Your task to perform on an android device: install app "WhatsApp Messenger" Image 0: 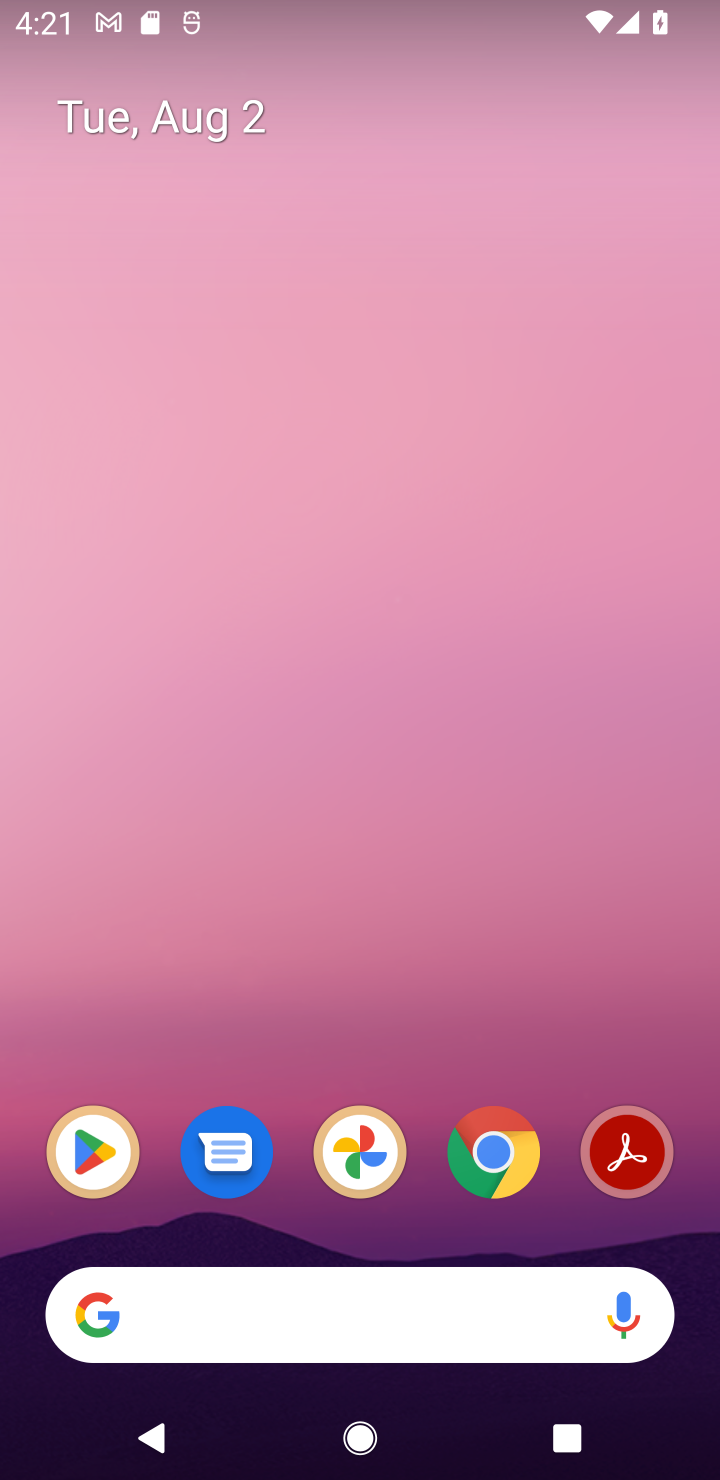
Step 0: drag from (548, 1011) to (0, 159)
Your task to perform on an android device: install app "WhatsApp Messenger" Image 1: 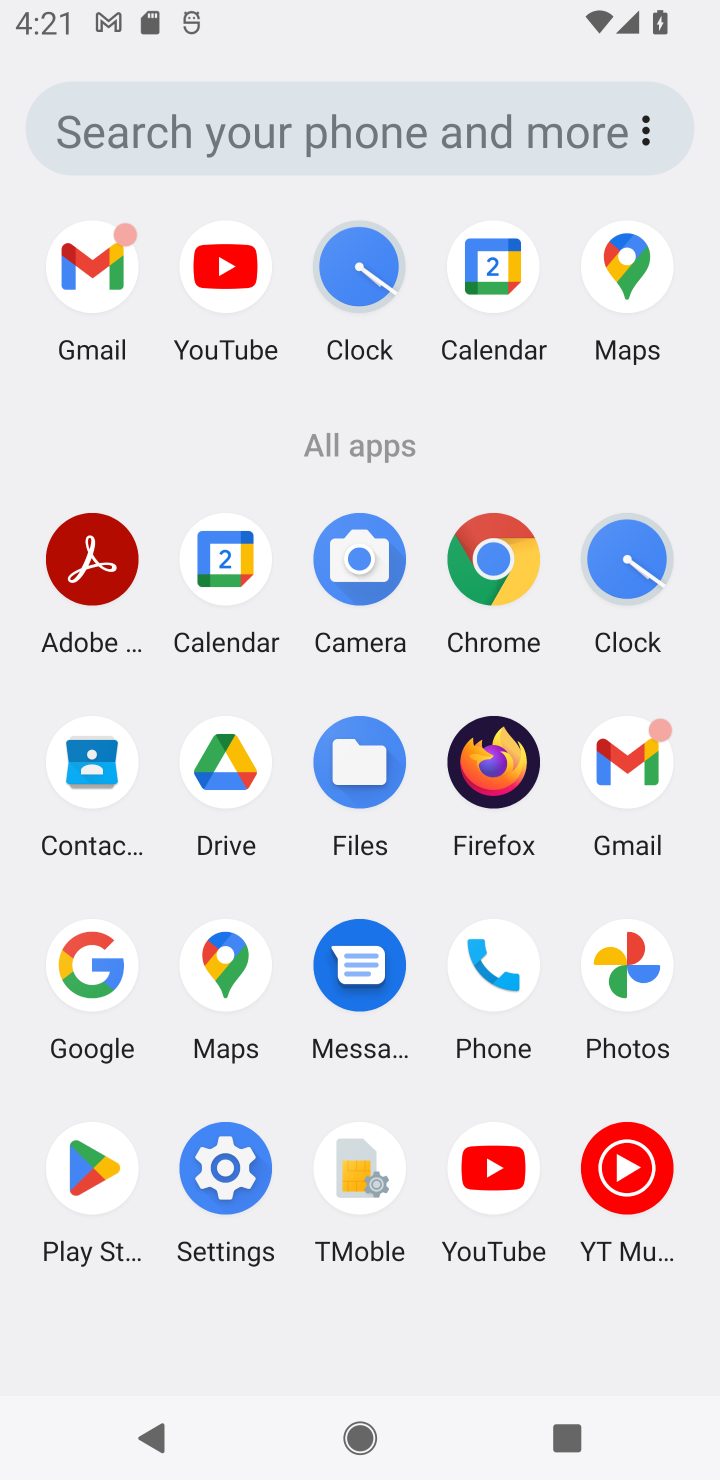
Step 1: click (105, 1160)
Your task to perform on an android device: install app "WhatsApp Messenger" Image 2: 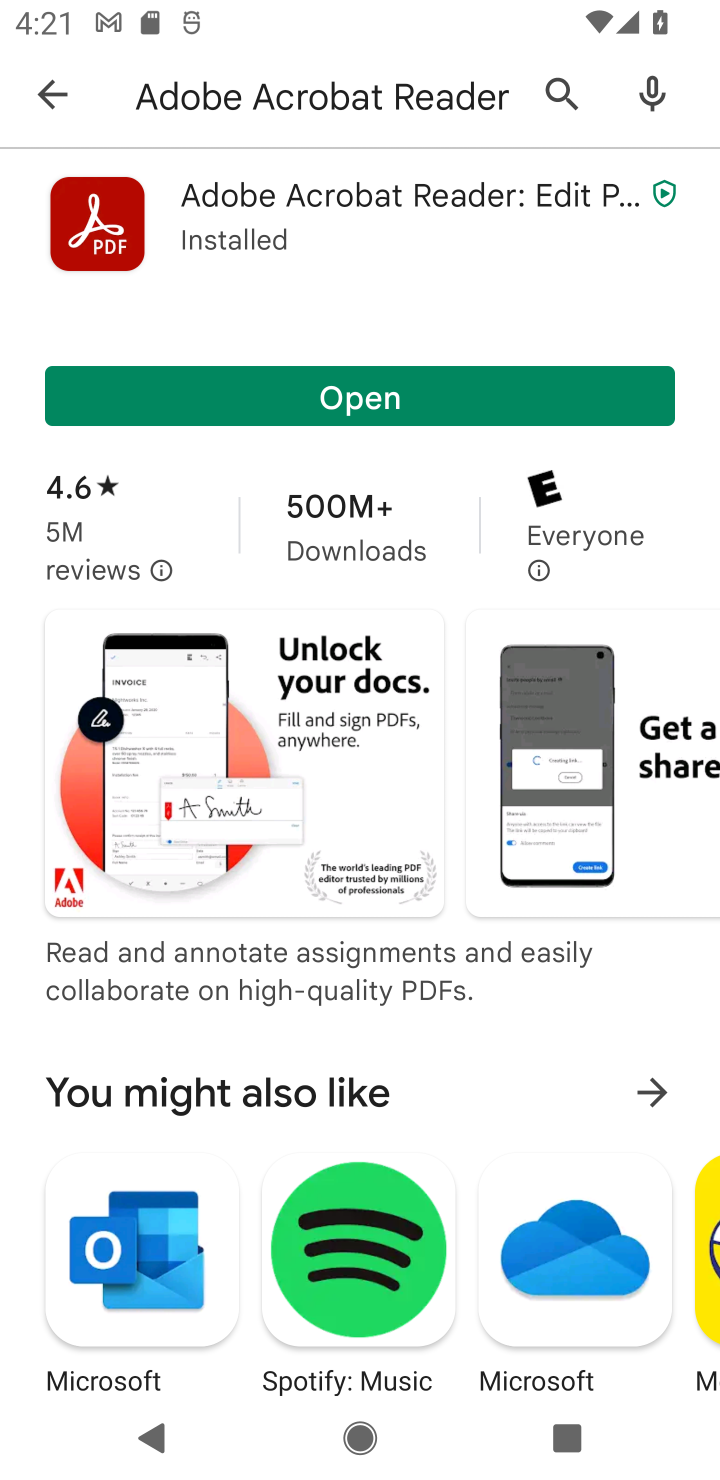
Step 2: click (458, 88)
Your task to perform on an android device: install app "WhatsApp Messenger" Image 3: 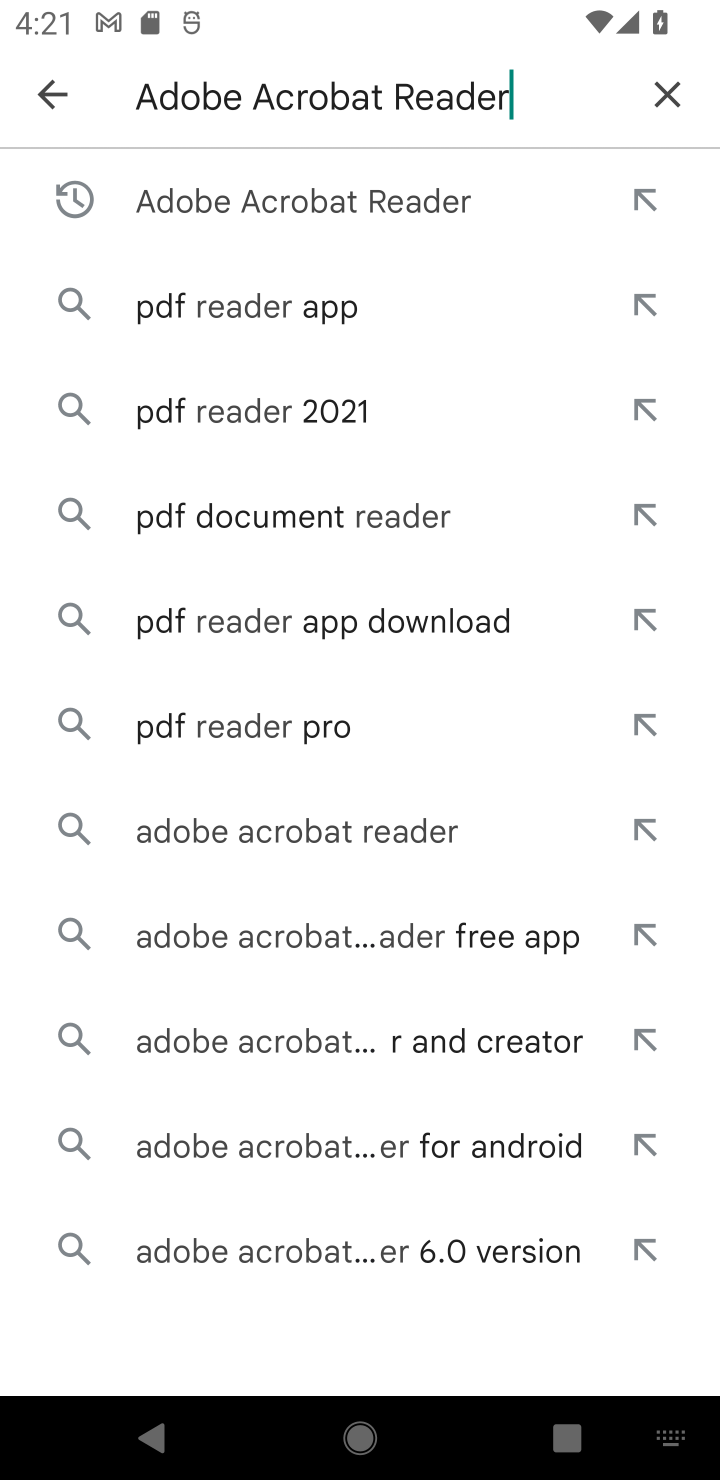
Step 3: click (682, 94)
Your task to perform on an android device: install app "WhatsApp Messenger" Image 4: 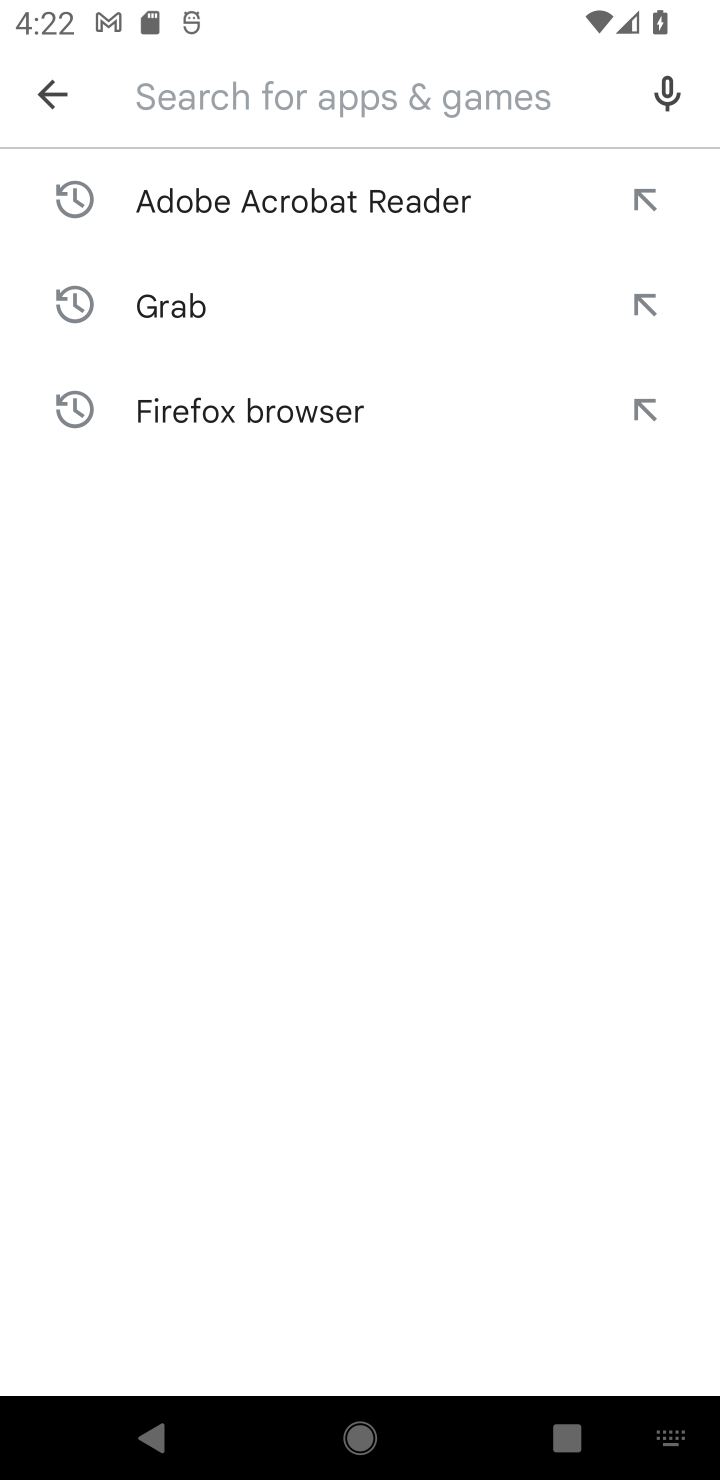
Step 4: type "WhatsApp MessengerWhatsApp Messenger"
Your task to perform on an android device: install app "WhatsApp Messenger" Image 5: 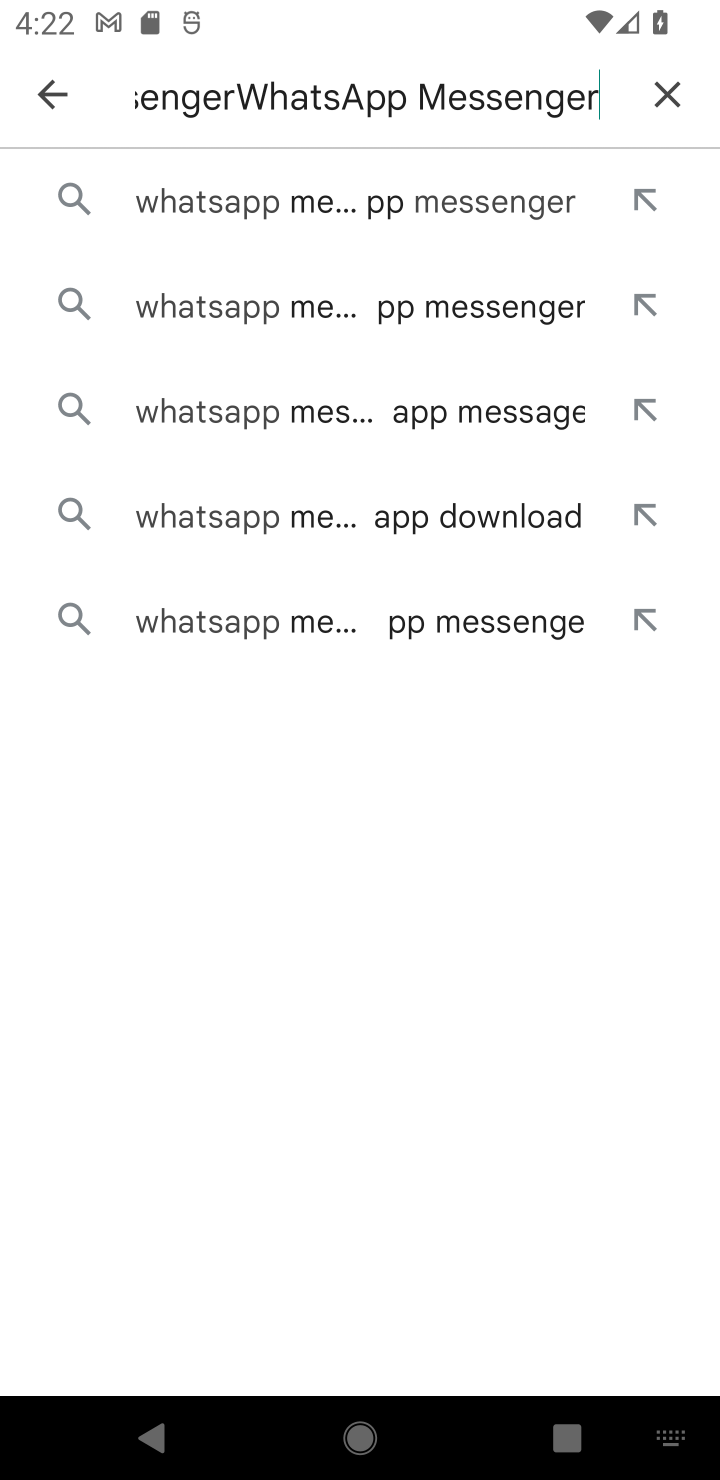
Step 5: press enter
Your task to perform on an android device: install app "WhatsApp Messenger" Image 6: 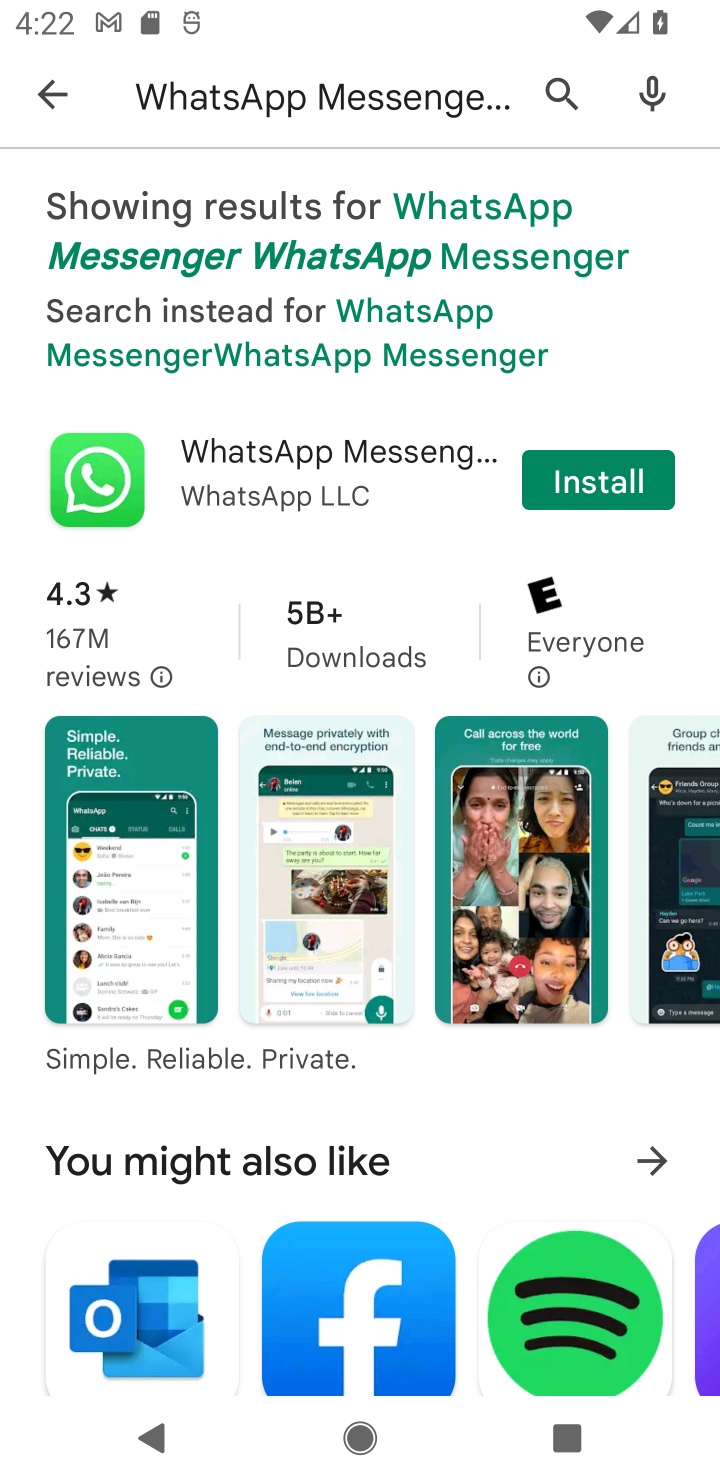
Step 6: click (382, 501)
Your task to perform on an android device: install app "WhatsApp Messenger" Image 7: 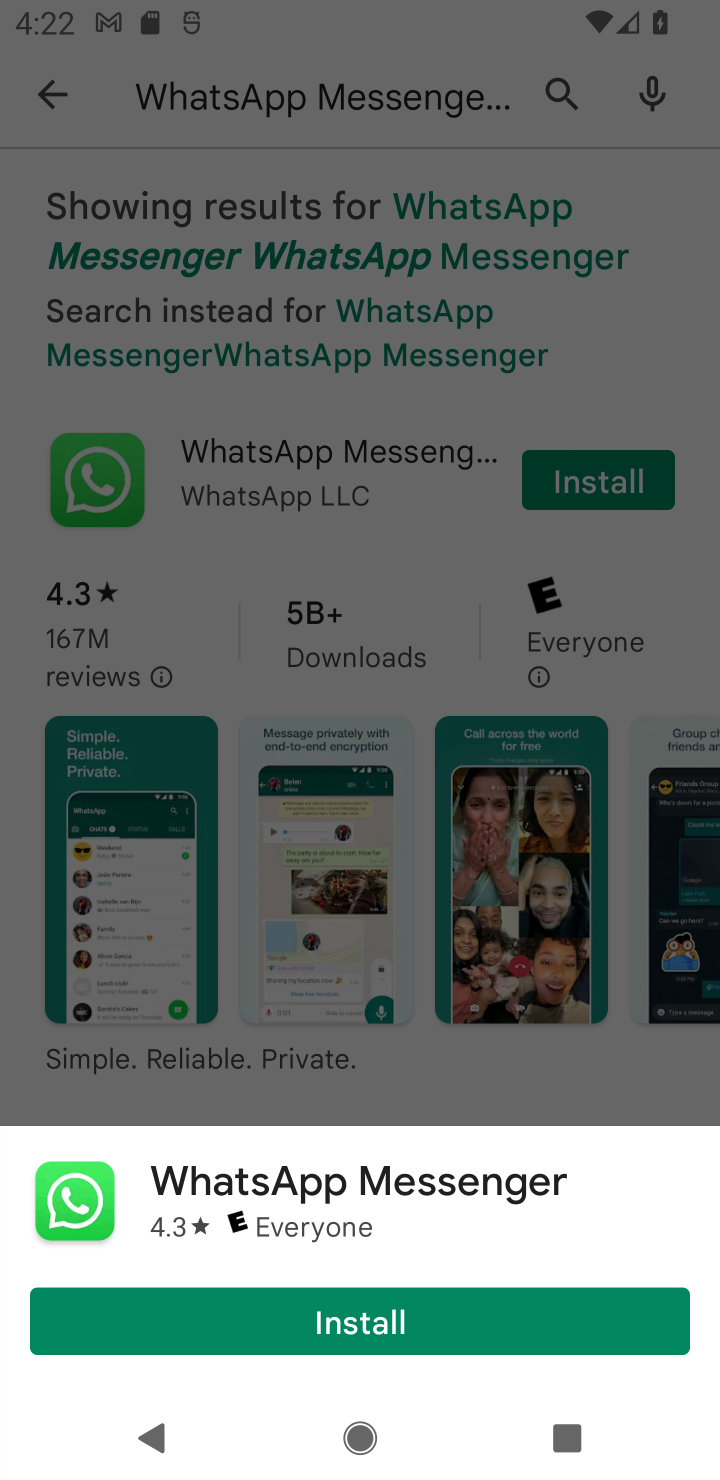
Step 7: click (486, 1340)
Your task to perform on an android device: install app "WhatsApp Messenger" Image 8: 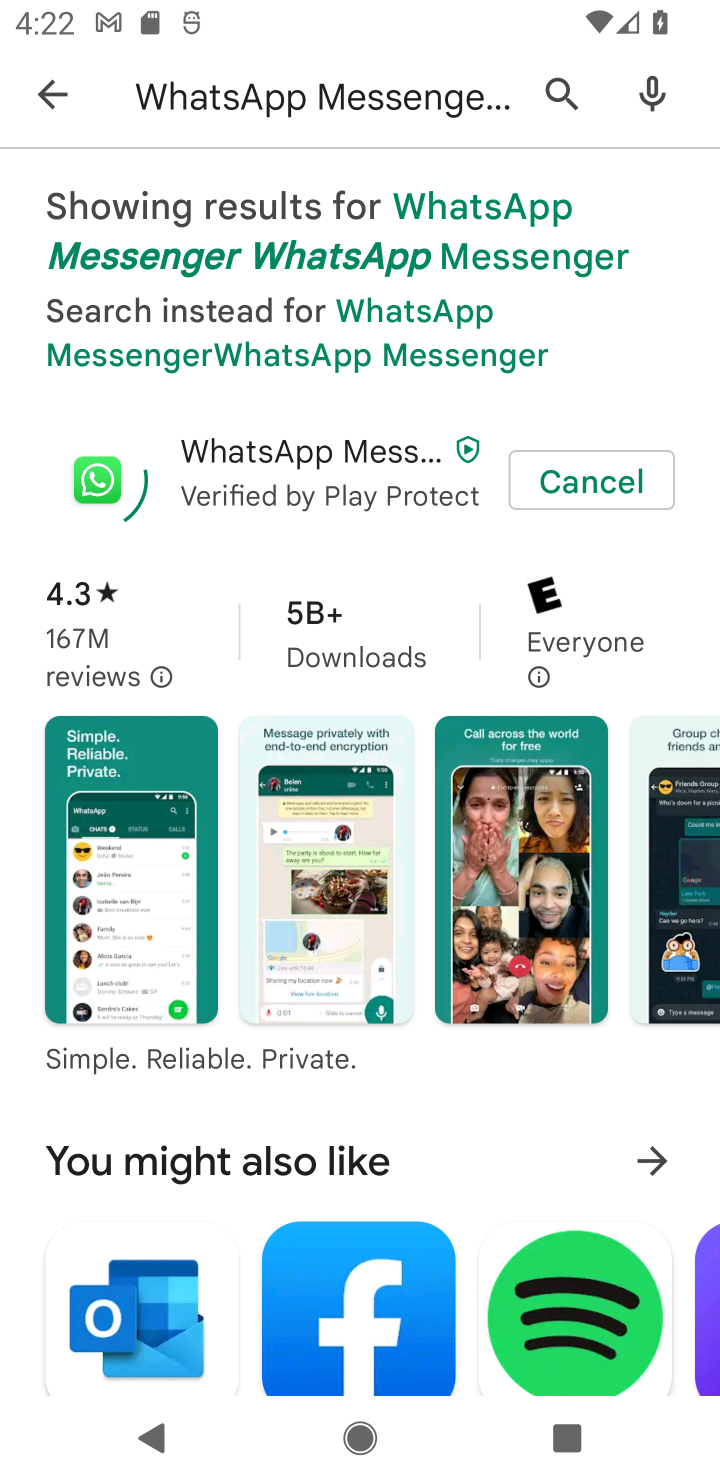
Step 8: click (170, 474)
Your task to perform on an android device: install app "WhatsApp Messenger" Image 9: 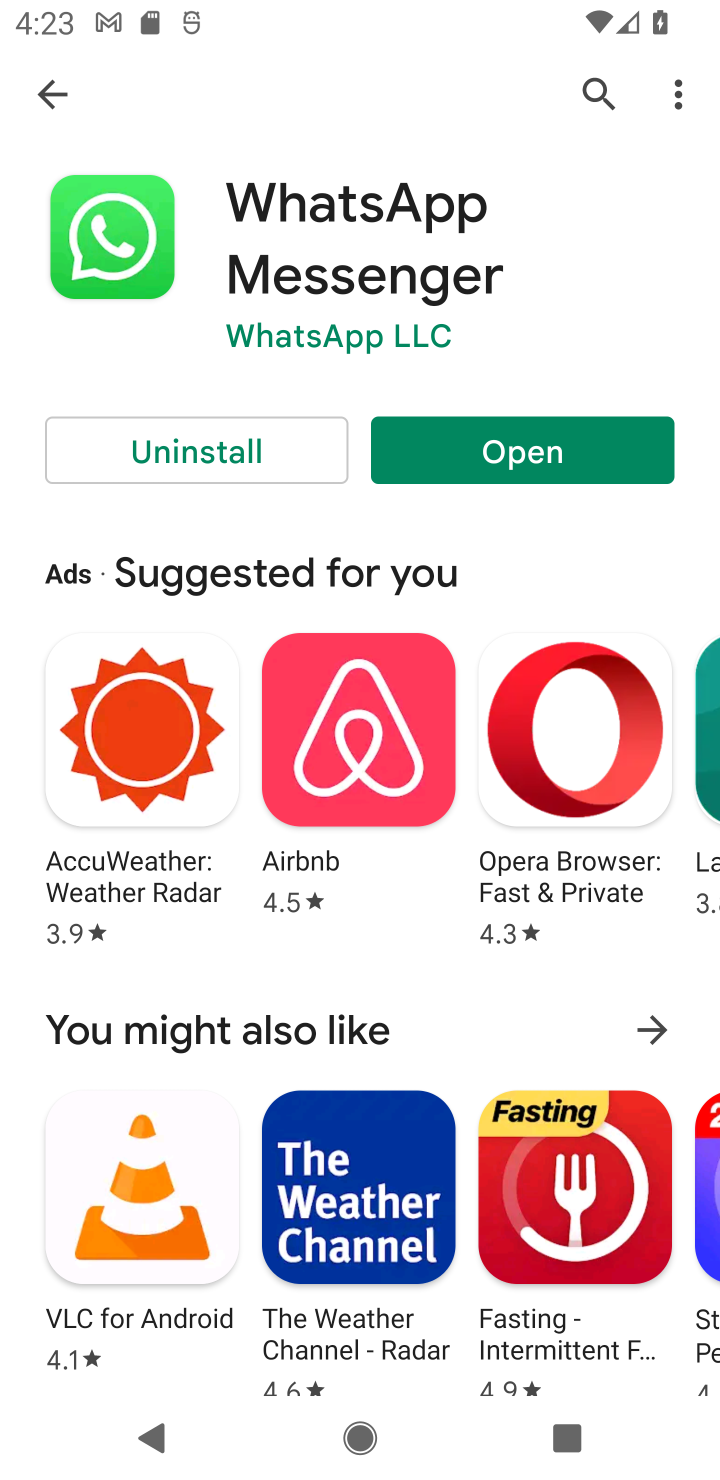
Step 9: task complete